Your task to perform on an android device: Search for Italian restaurants on Maps Image 0: 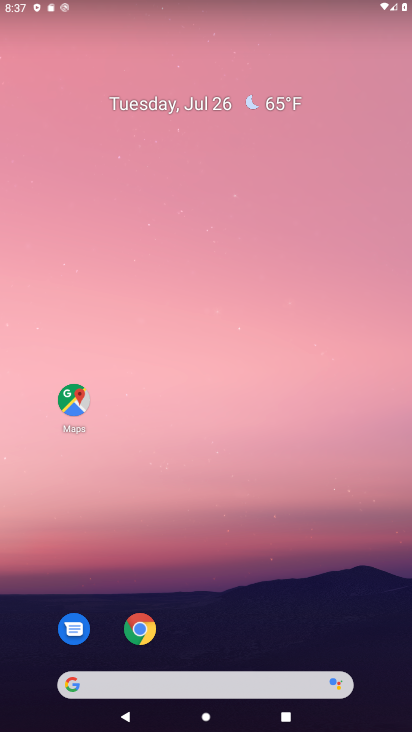
Step 0: click (68, 413)
Your task to perform on an android device: Search for Italian restaurants on Maps Image 1: 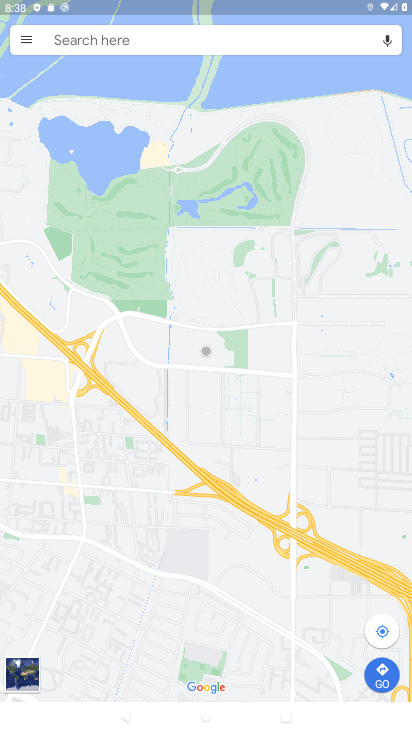
Step 1: click (128, 29)
Your task to perform on an android device: Search for Italian restaurants on Maps Image 2: 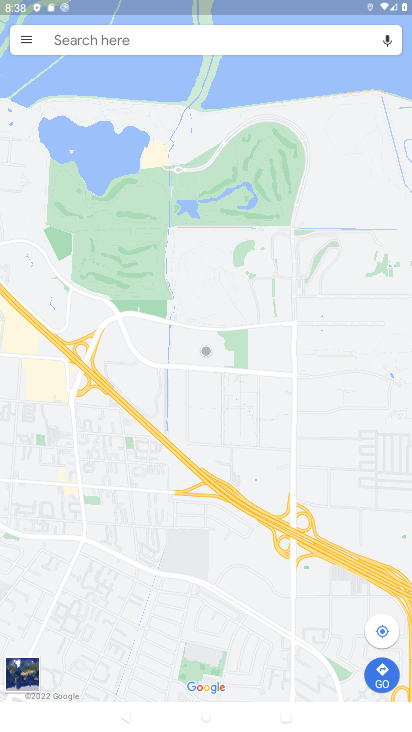
Step 2: click (128, 29)
Your task to perform on an android device: Search for Italian restaurants on Maps Image 3: 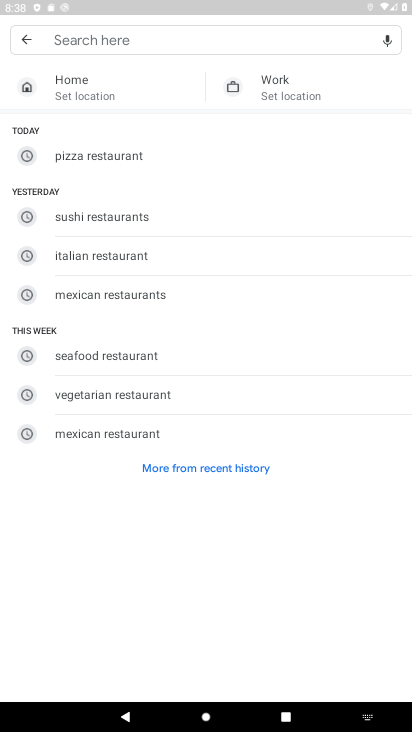
Step 3: type "italian restaurants"
Your task to perform on an android device: Search for Italian restaurants on Maps Image 4: 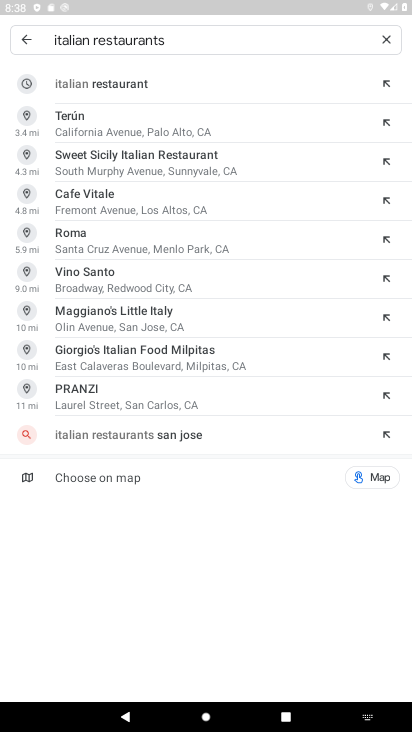
Step 4: click (59, 75)
Your task to perform on an android device: Search for Italian restaurants on Maps Image 5: 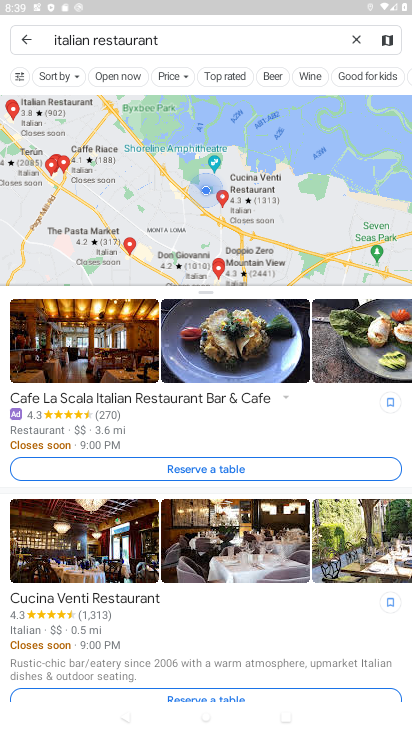
Step 5: task complete